Your task to perform on an android device: open the mobile data screen to see how much data has been used Image 0: 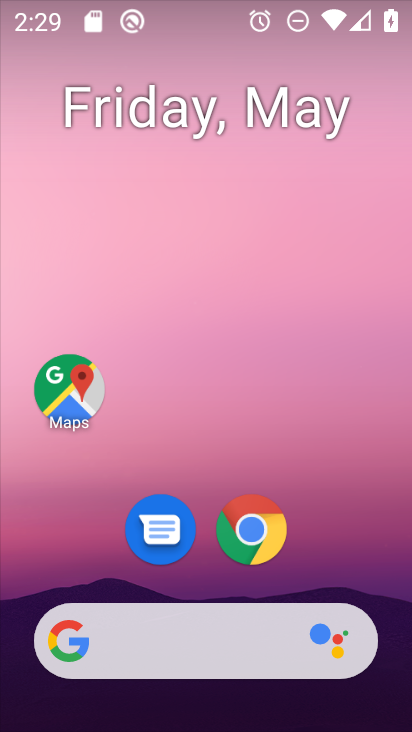
Step 0: press home button
Your task to perform on an android device: open the mobile data screen to see how much data has been used Image 1: 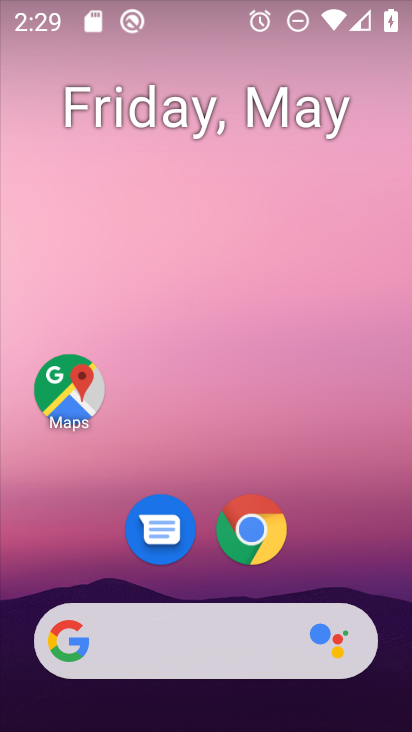
Step 1: drag from (396, 709) to (350, 309)
Your task to perform on an android device: open the mobile data screen to see how much data has been used Image 2: 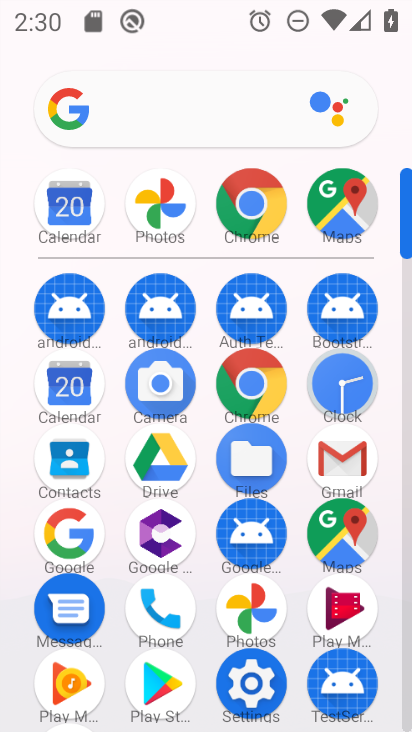
Step 2: click (250, 679)
Your task to perform on an android device: open the mobile data screen to see how much data has been used Image 3: 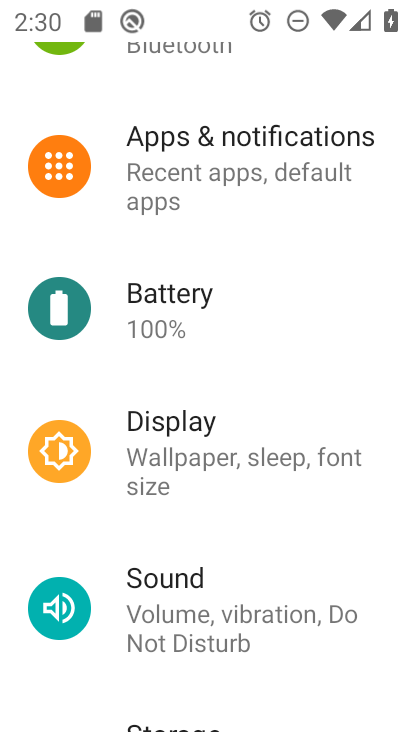
Step 3: drag from (333, 76) to (354, 557)
Your task to perform on an android device: open the mobile data screen to see how much data has been used Image 4: 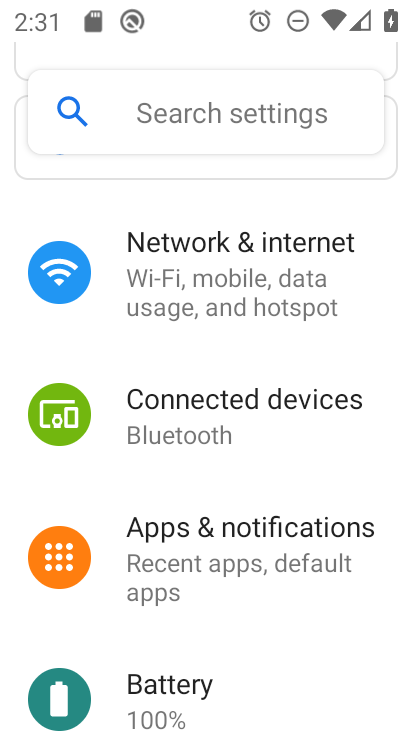
Step 4: click (241, 289)
Your task to perform on an android device: open the mobile data screen to see how much data has been used Image 5: 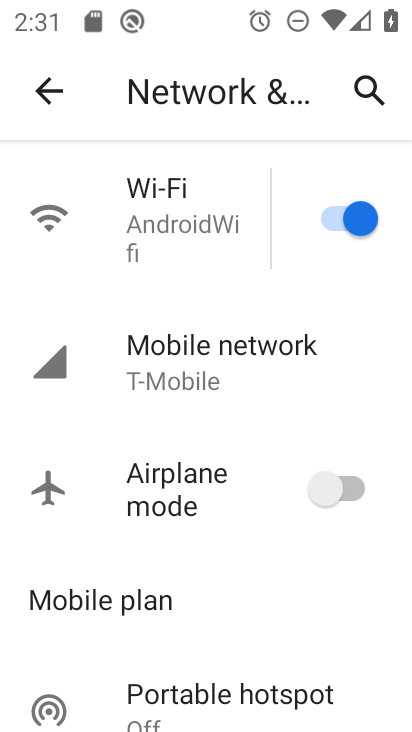
Step 5: click (174, 374)
Your task to perform on an android device: open the mobile data screen to see how much data has been used Image 6: 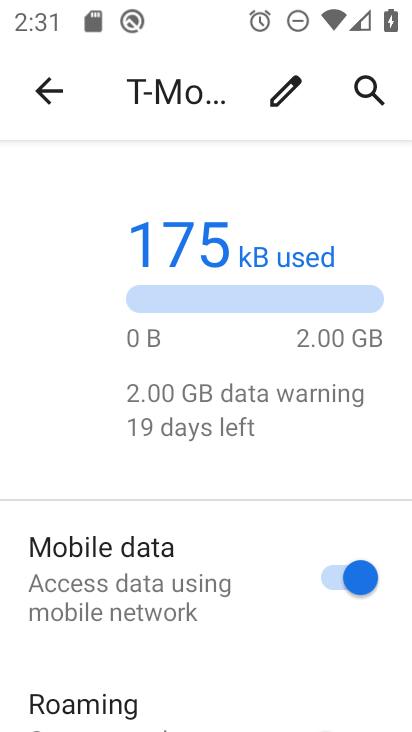
Step 6: task complete